Your task to perform on an android device: delete browsing data in the chrome app Image 0: 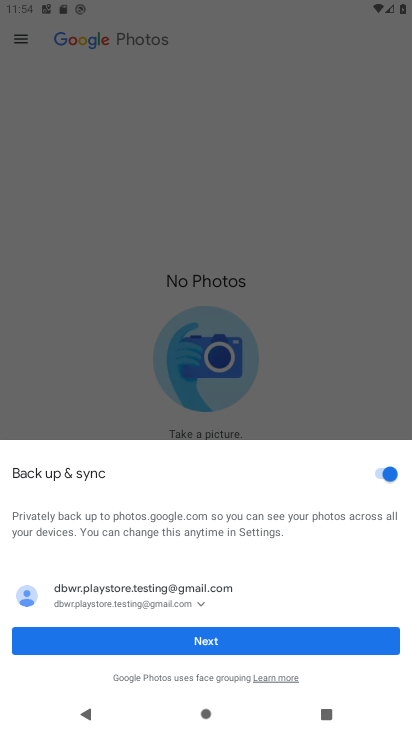
Step 0: press home button
Your task to perform on an android device: delete browsing data in the chrome app Image 1: 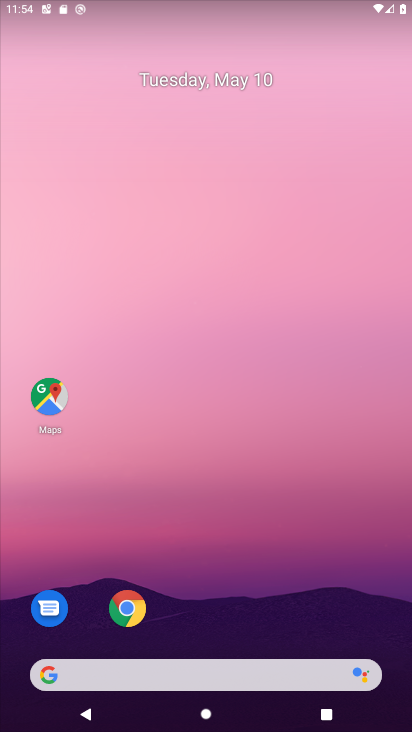
Step 1: click (146, 613)
Your task to perform on an android device: delete browsing data in the chrome app Image 2: 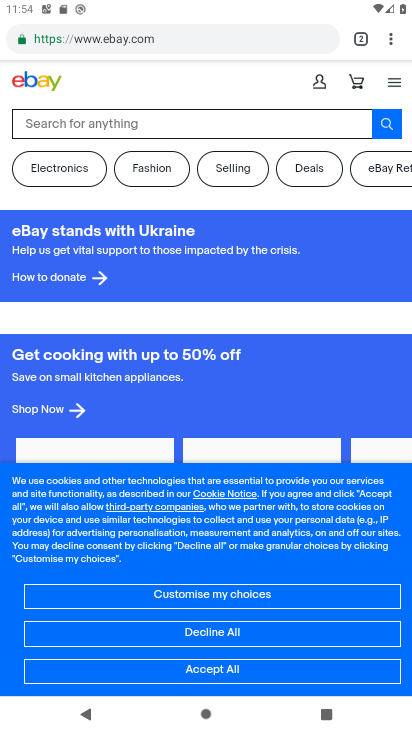
Step 2: drag from (394, 41) to (336, 272)
Your task to perform on an android device: delete browsing data in the chrome app Image 3: 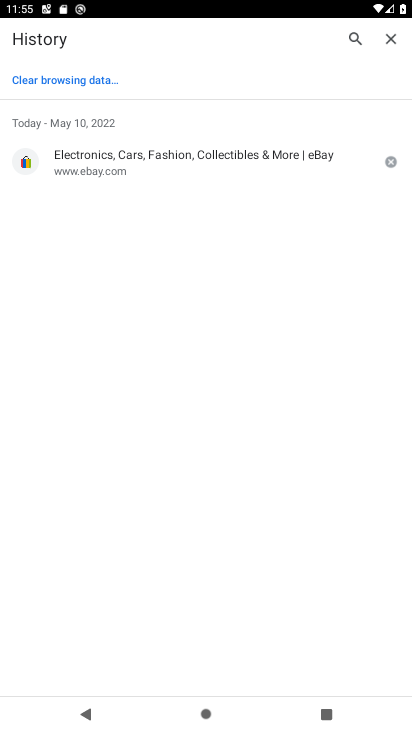
Step 3: click (54, 85)
Your task to perform on an android device: delete browsing data in the chrome app Image 4: 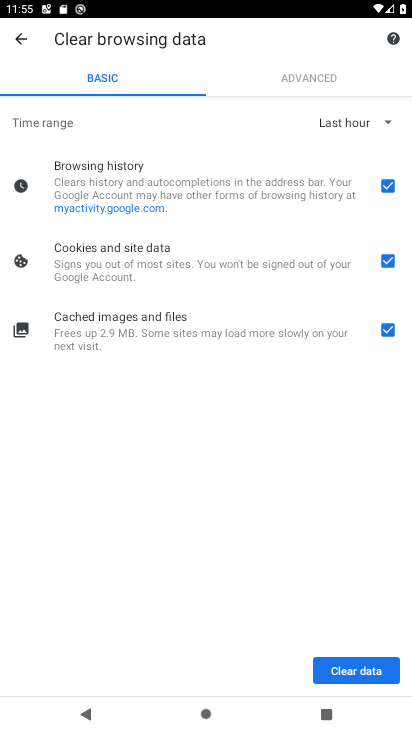
Step 4: click (322, 673)
Your task to perform on an android device: delete browsing data in the chrome app Image 5: 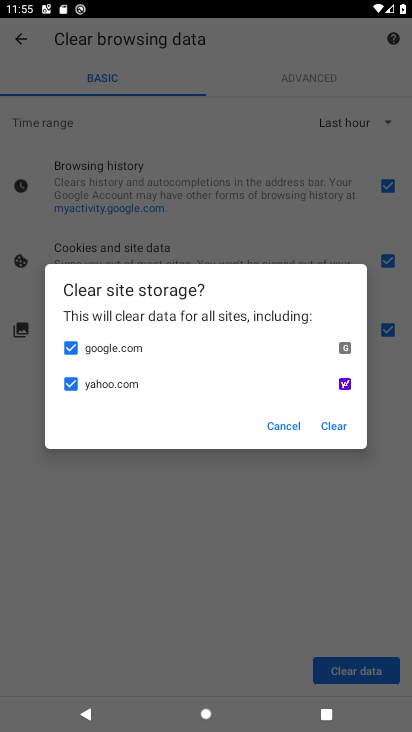
Step 5: click (328, 422)
Your task to perform on an android device: delete browsing data in the chrome app Image 6: 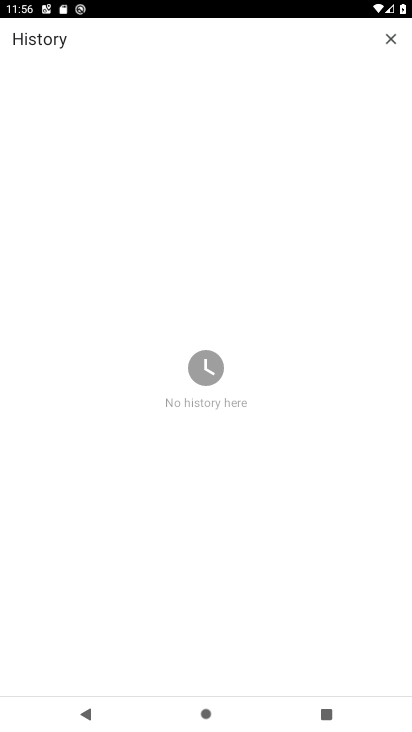
Step 6: task complete